Your task to perform on an android device: Open Google Chrome and click the shortcut for Amazon.com Image 0: 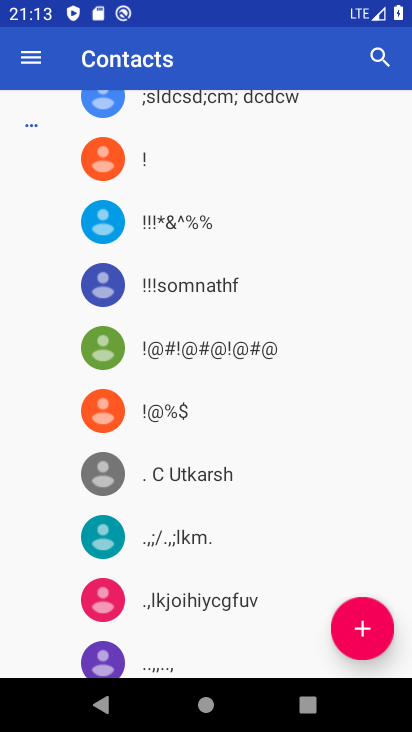
Step 0: press home button
Your task to perform on an android device: Open Google Chrome and click the shortcut for Amazon.com Image 1: 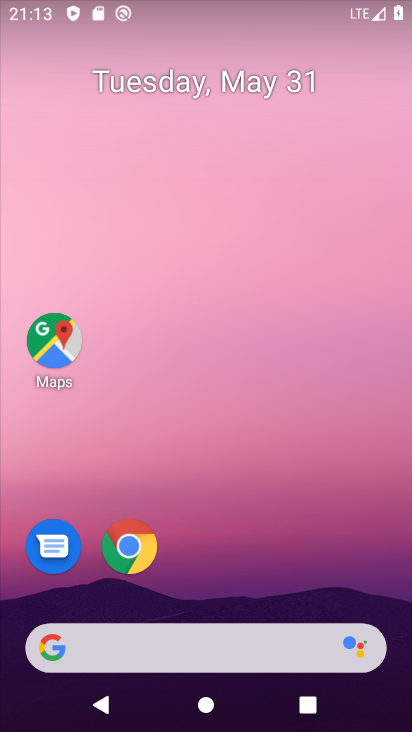
Step 1: click (121, 551)
Your task to perform on an android device: Open Google Chrome and click the shortcut for Amazon.com Image 2: 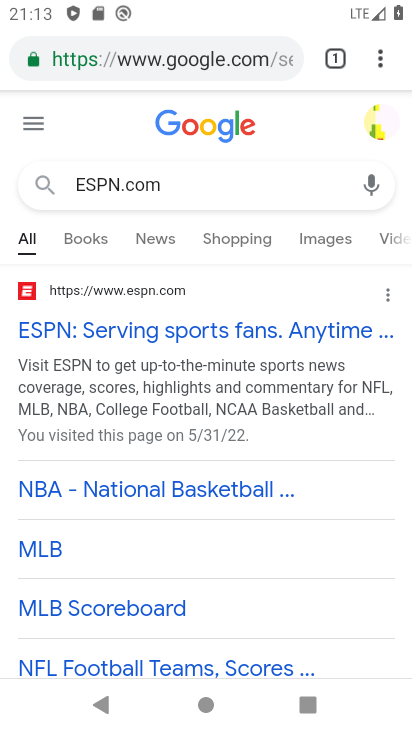
Step 2: click (380, 59)
Your task to perform on an android device: Open Google Chrome and click the shortcut for Amazon.com Image 3: 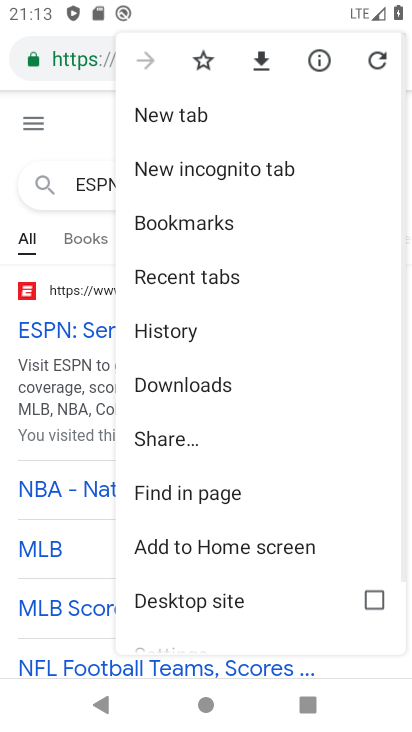
Step 3: click (184, 118)
Your task to perform on an android device: Open Google Chrome and click the shortcut for Amazon.com Image 4: 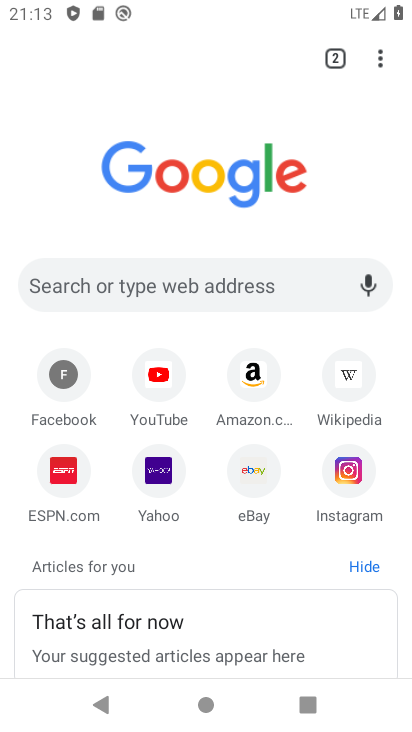
Step 4: click (252, 377)
Your task to perform on an android device: Open Google Chrome and click the shortcut for Amazon.com Image 5: 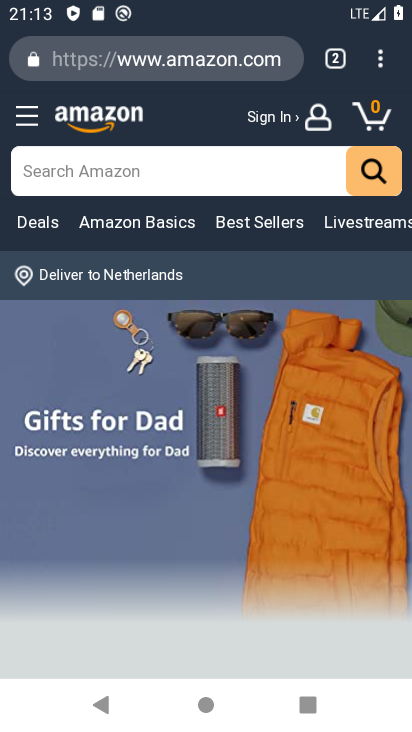
Step 5: task complete